Your task to perform on an android device: open the mobile data screen to see how much data has been used Image 0: 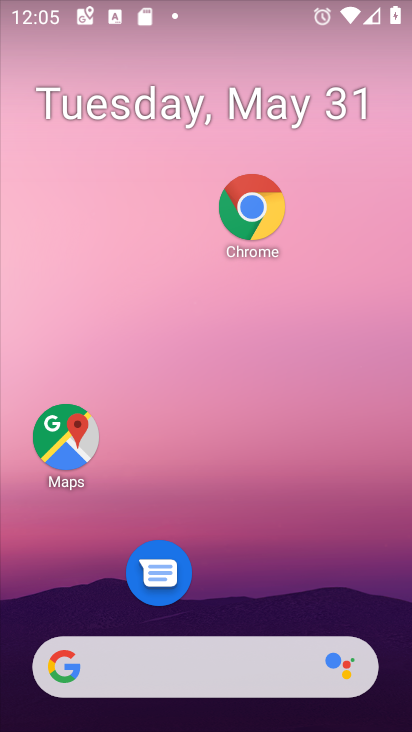
Step 0: drag from (242, 663) to (298, 98)
Your task to perform on an android device: open the mobile data screen to see how much data has been used Image 1: 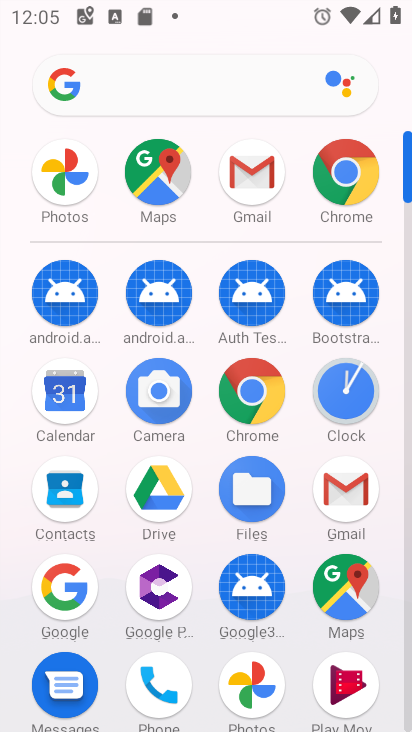
Step 1: drag from (225, 465) to (289, 125)
Your task to perform on an android device: open the mobile data screen to see how much data has been used Image 2: 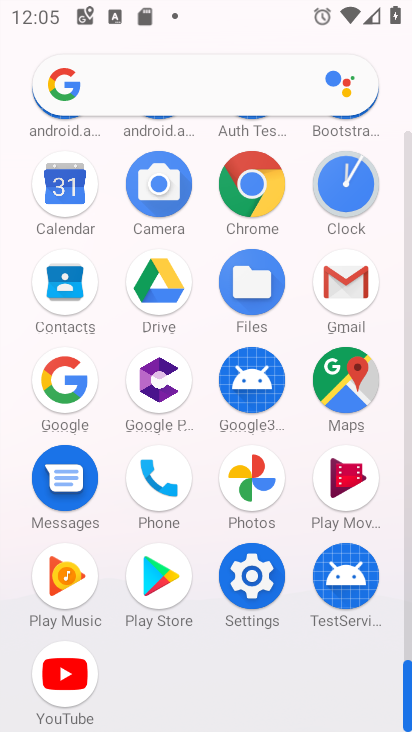
Step 2: click (245, 609)
Your task to perform on an android device: open the mobile data screen to see how much data has been used Image 3: 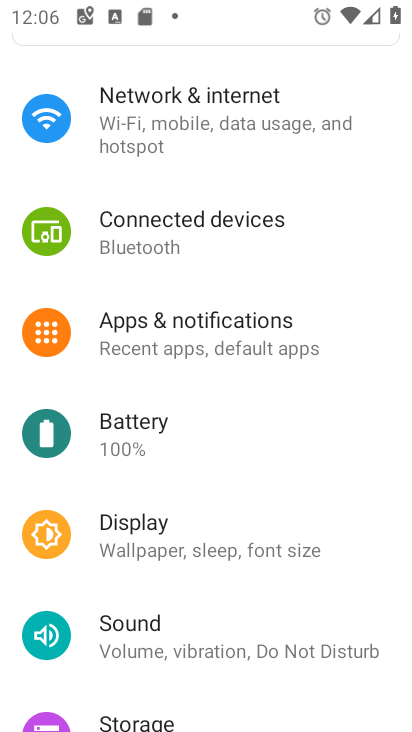
Step 3: drag from (231, 542) to (210, 649)
Your task to perform on an android device: open the mobile data screen to see how much data has been used Image 4: 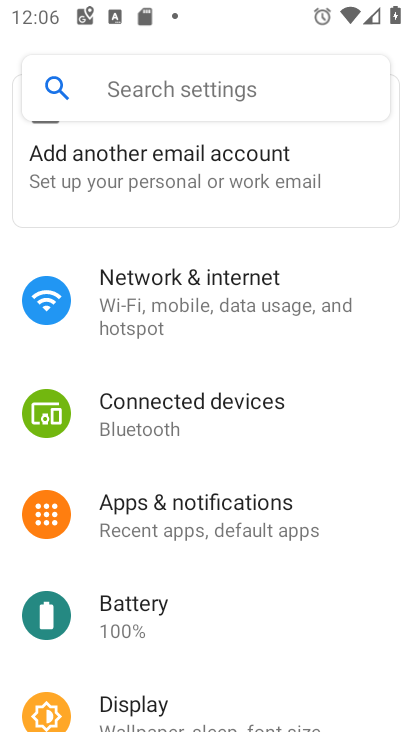
Step 4: click (251, 301)
Your task to perform on an android device: open the mobile data screen to see how much data has been used Image 5: 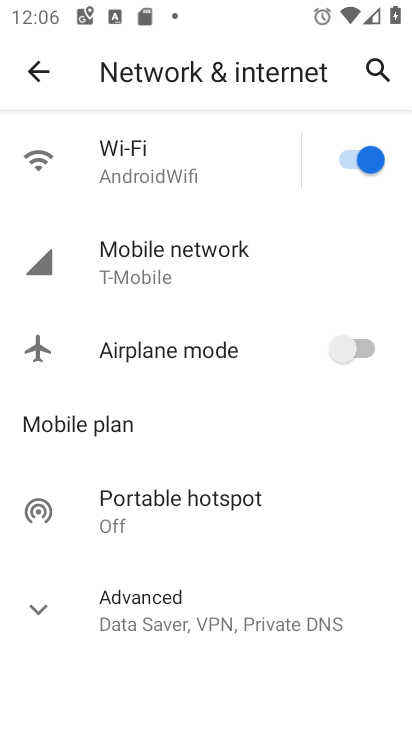
Step 5: click (220, 261)
Your task to perform on an android device: open the mobile data screen to see how much data has been used Image 6: 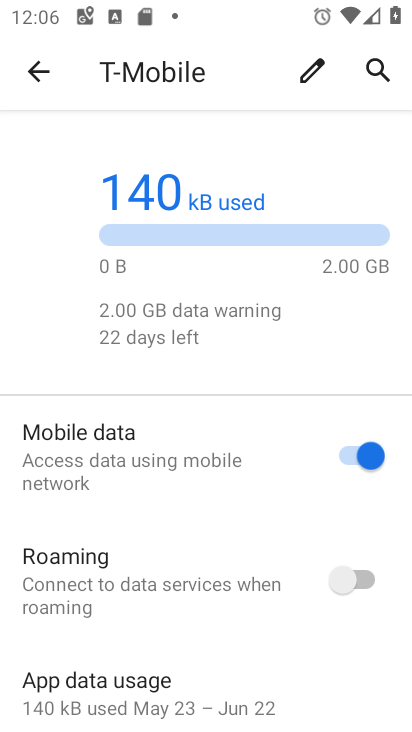
Step 6: drag from (178, 557) to (299, 225)
Your task to perform on an android device: open the mobile data screen to see how much data has been used Image 7: 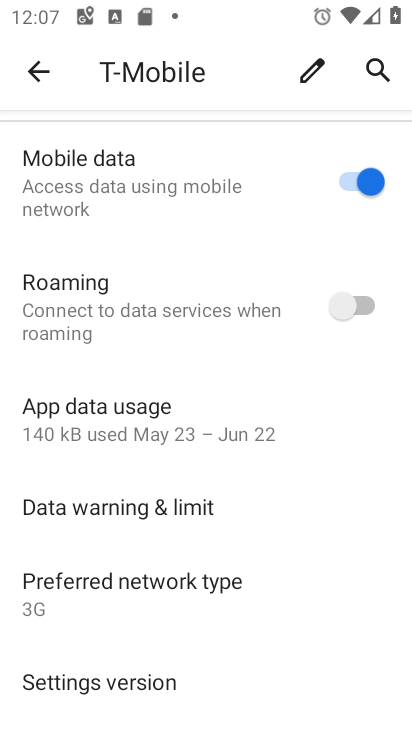
Step 7: click (132, 432)
Your task to perform on an android device: open the mobile data screen to see how much data has been used Image 8: 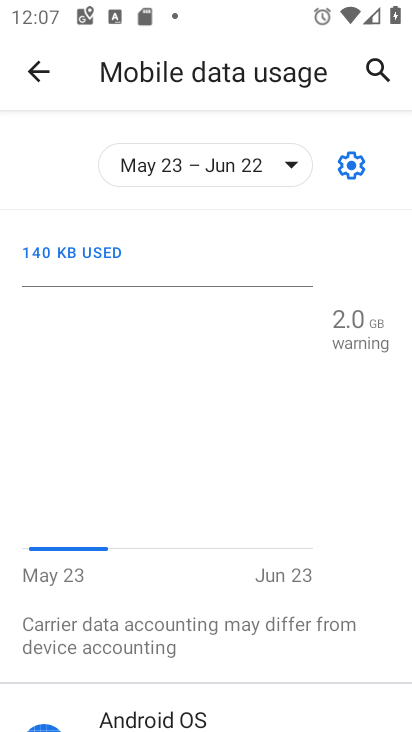
Step 8: task complete